Your task to perform on an android device: Go to ESPN.com Image 0: 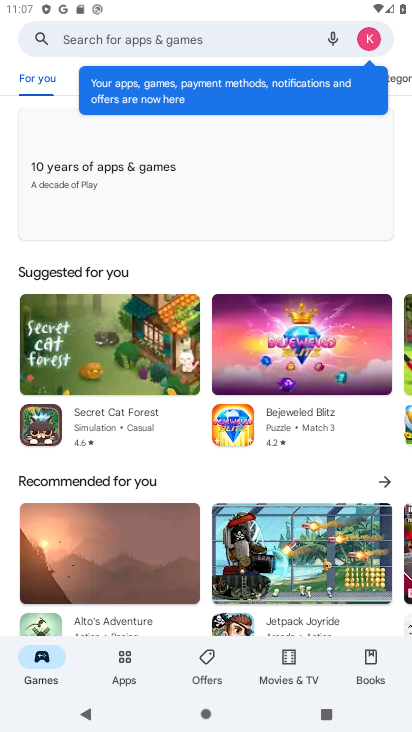
Step 0: press home button
Your task to perform on an android device: Go to ESPN.com Image 1: 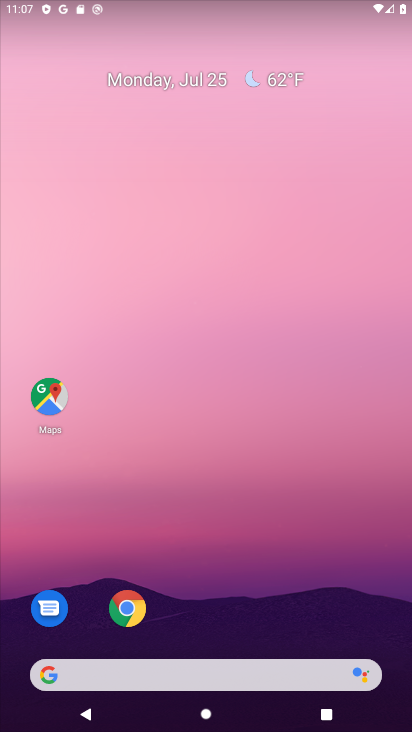
Step 1: click (241, 674)
Your task to perform on an android device: Go to ESPN.com Image 2: 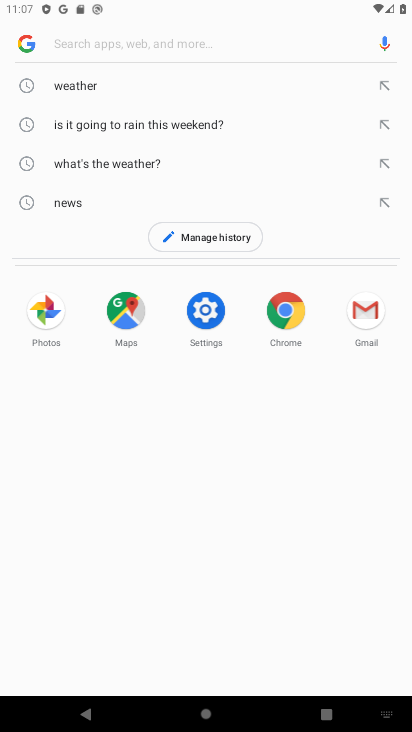
Step 2: type " ESPN.com"
Your task to perform on an android device: Go to ESPN.com Image 3: 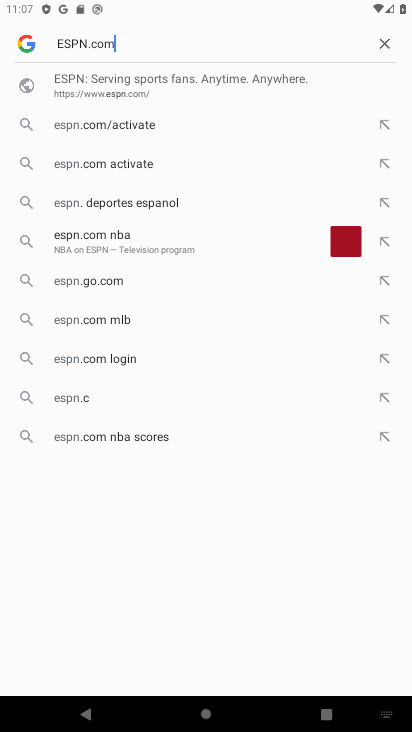
Step 3: press enter
Your task to perform on an android device: Go to ESPN.com Image 4: 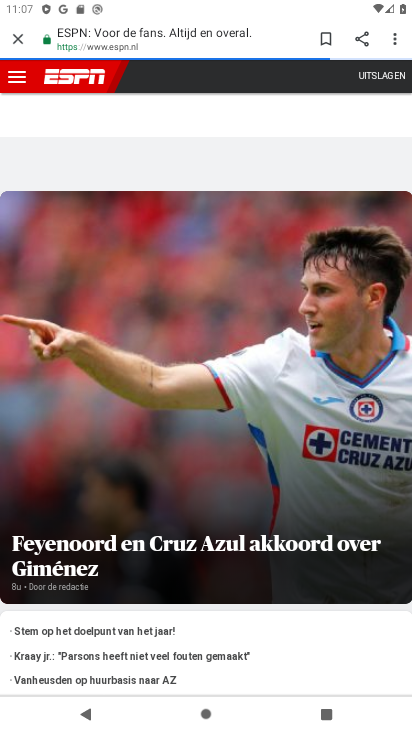
Step 4: task complete